Your task to perform on an android device: Check the weather Image 0: 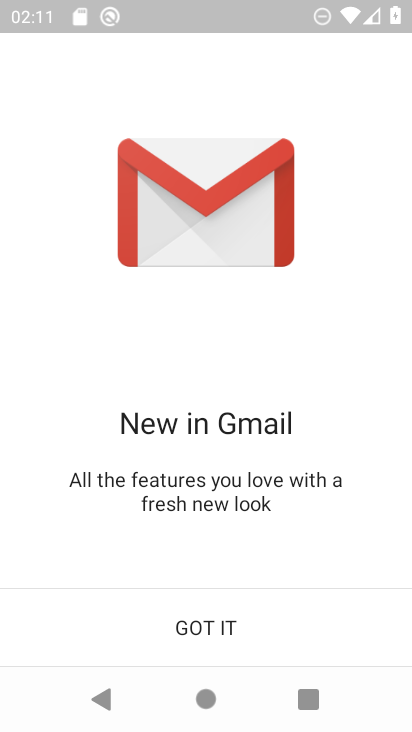
Step 0: press home button
Your task to perform on an android device: Check the weather Image 1: 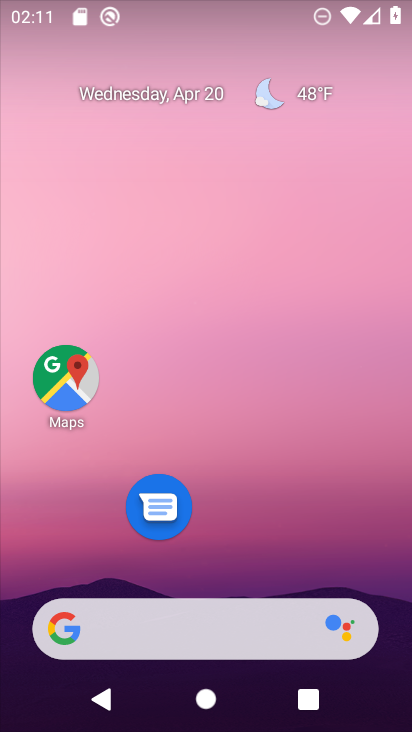
Step 1: click (290, 91)
Your task to perform on an android device: Check the weather Image 2: 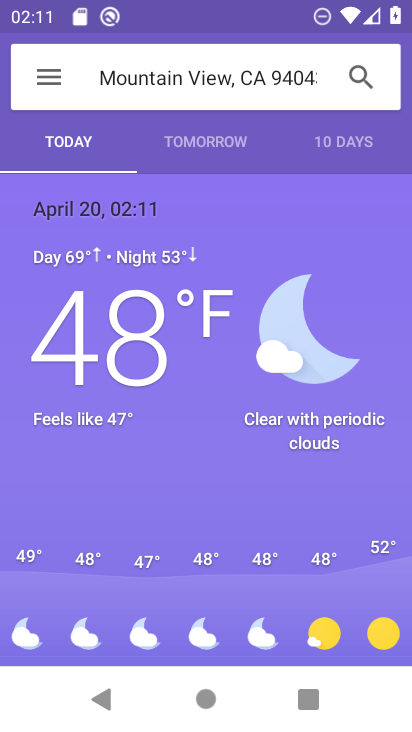
Step 2: task complete